Your task to perform on an android device: add a label to a message in the gmail app Image 0: 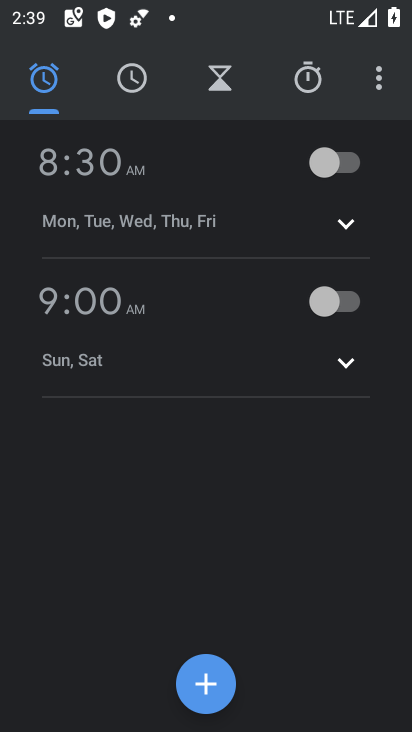
Step 0: press home button
Your task to perform on an android device: add a label to a message in the gmail app Image 1: 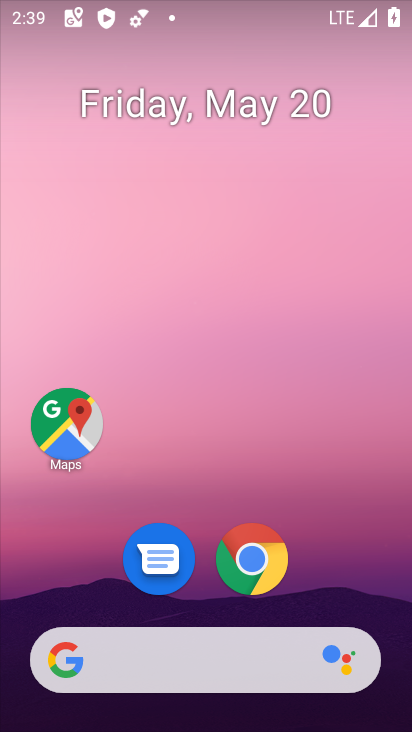
Step 1: drag from (333, 552) to (335, 93)
Your task to perform on an android device: add a label to a message in the gmail app Image 2: 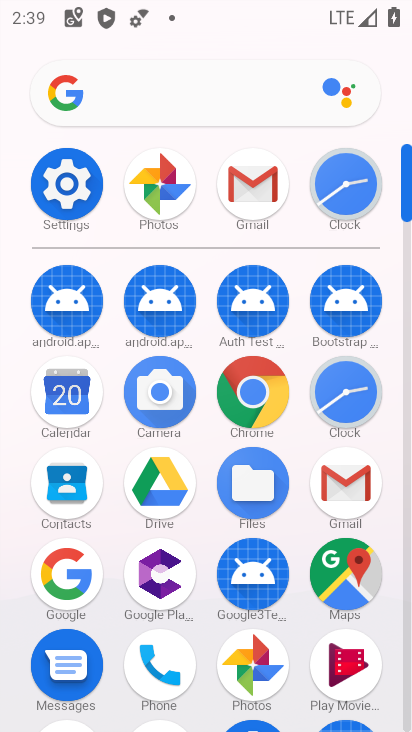
Step 2: click (269, 197)
Your task to perform on an android device: add a label to a message in the gmail app Image 3: 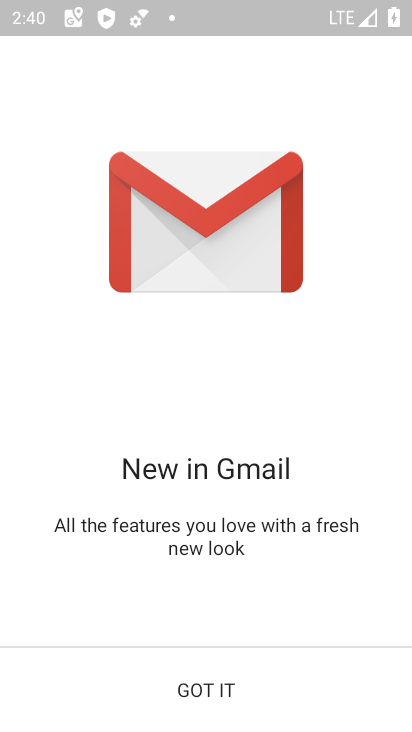
Step 3: click (212, 686)
Your task to perform on an android device: add a label to a message in the gmail app Image 4: 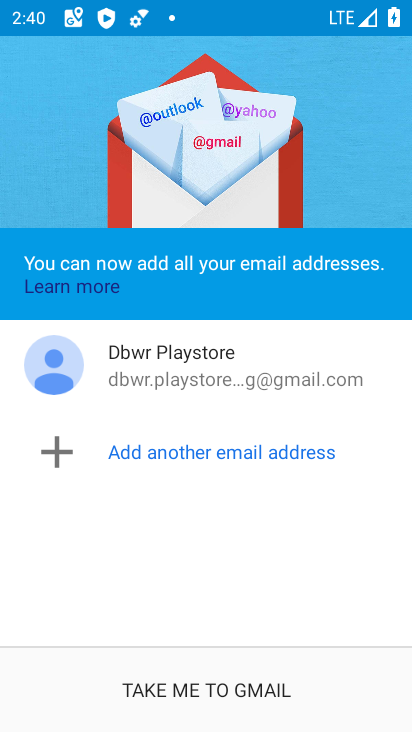
Step 4: click (212, 686)
Your task to perform on an android device: add a label to a message in the gmail app Image 5: 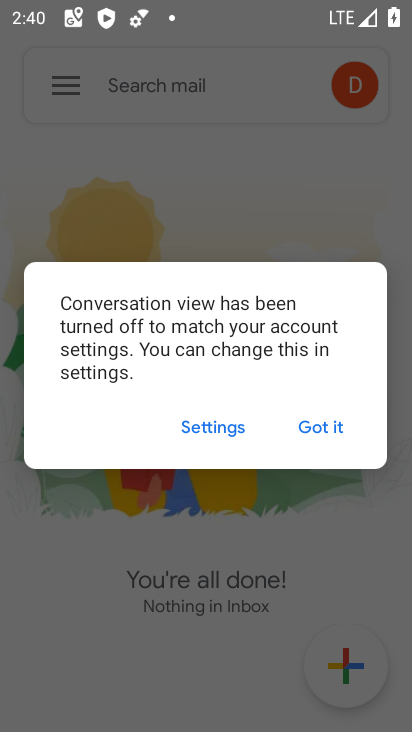
Step 5: click (228, 423)
Your task to perform on an android device: add a label to a message in the gmail app Image 6: 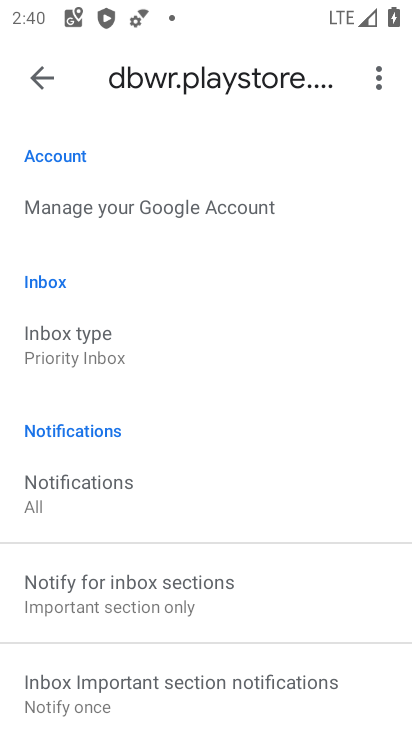
Step 6: click (30, 71)
Your task to perform on an android device: add a label to a message in the gmail app Image 7: 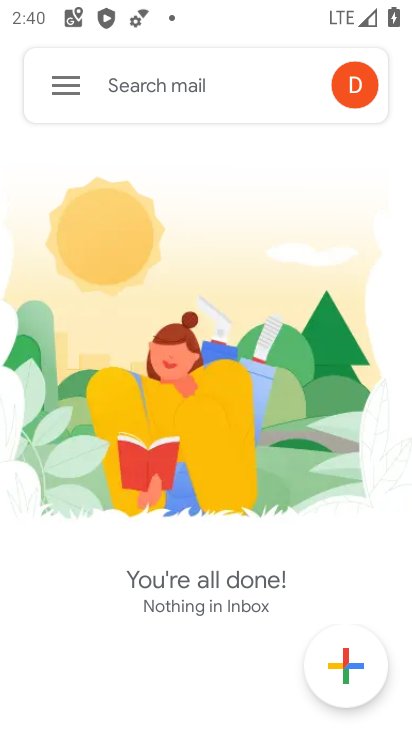
Step 7: click (53, 81)
Your task to perform on an android device: add a label to a message in the gmail app Image 8: 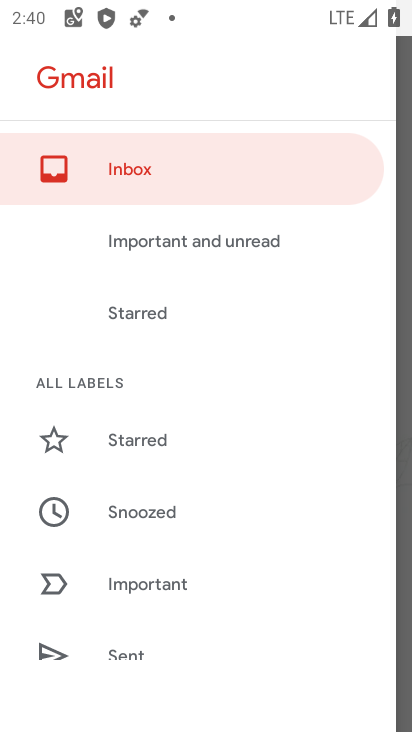
Step 8: drag from (245, 559) to (266, 141)
Your task to perform on an android device: add a label to a message in the gmail app Image 9: 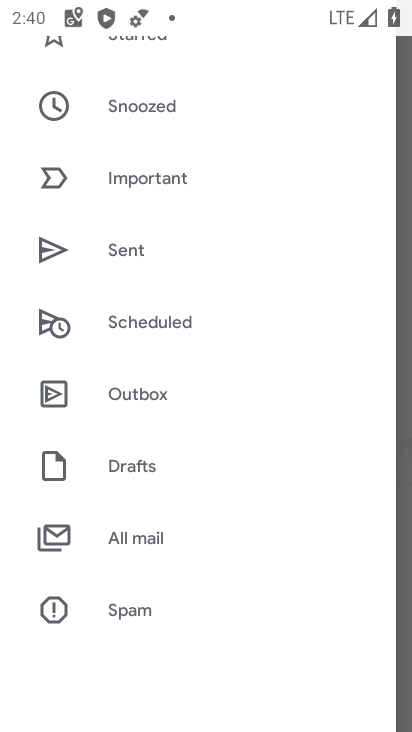
Step 9: click (160, 539)
Your task to perform on an android device: add a label to a message in the gmail app Image 10: 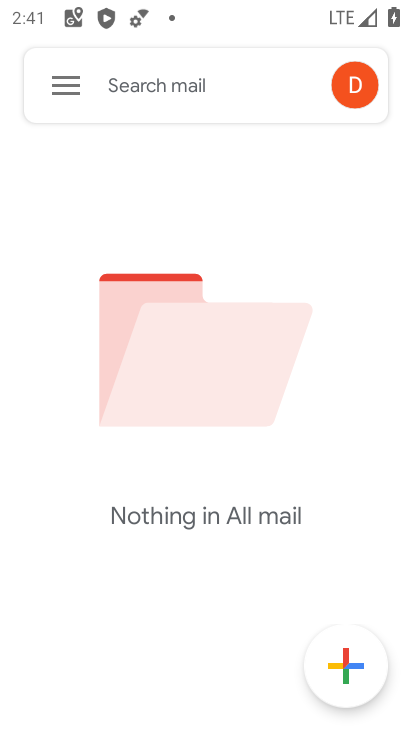
Step 10: task complete